Your task to perform on an android device: What's the weather? Image 0: 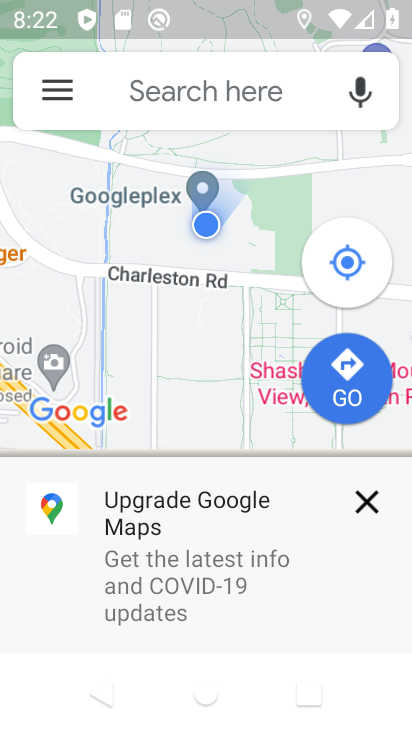
Step 0: press back button
Your task to perform on an android device: What's the weather? Image 1: 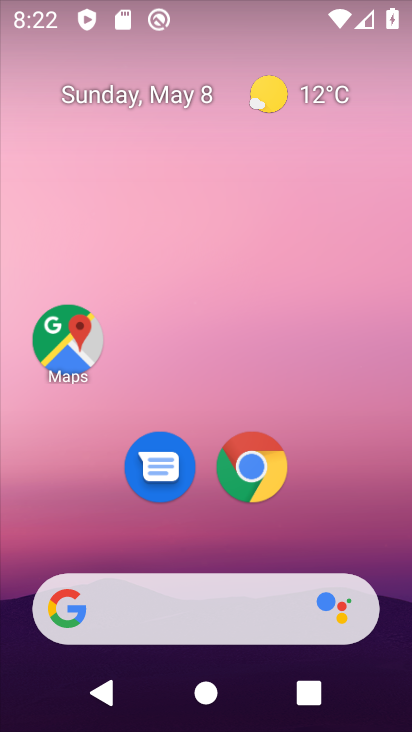
Step 1: click (278, 97)
Your task to perform on an android device: What's the weather? Image 2: 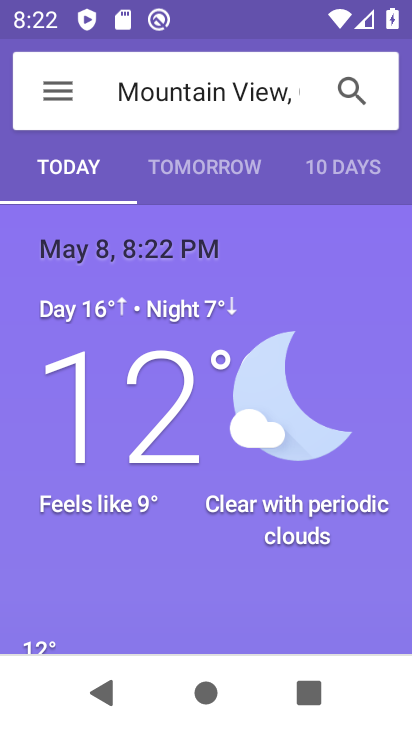
Step 2: task complete